Your task to perform on an android device: see sites visited before in the chrome app Image 0: 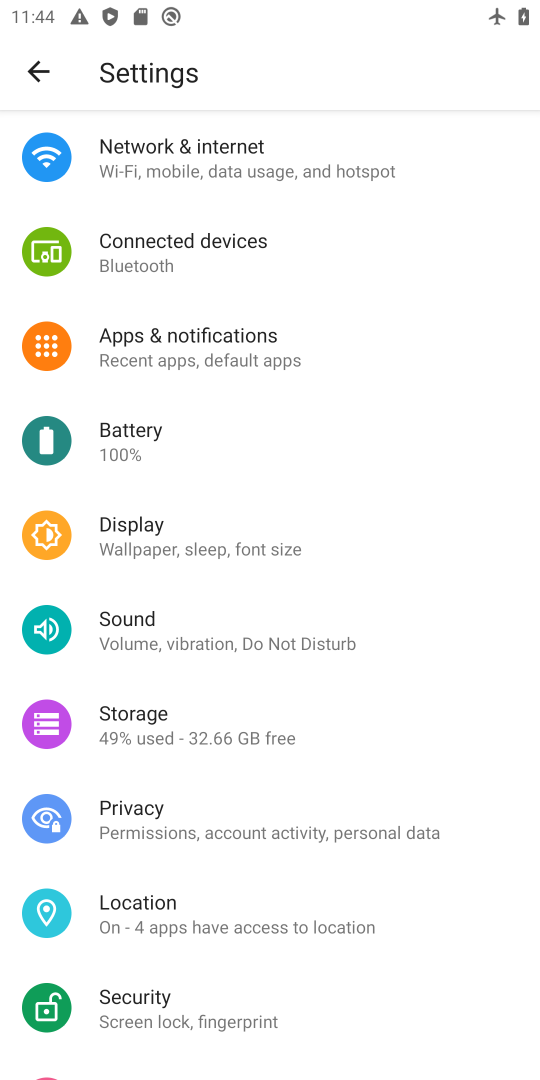
Step 0: press home button
Your task to perform on an android device: see sites visited before in the chrome app Image 1: 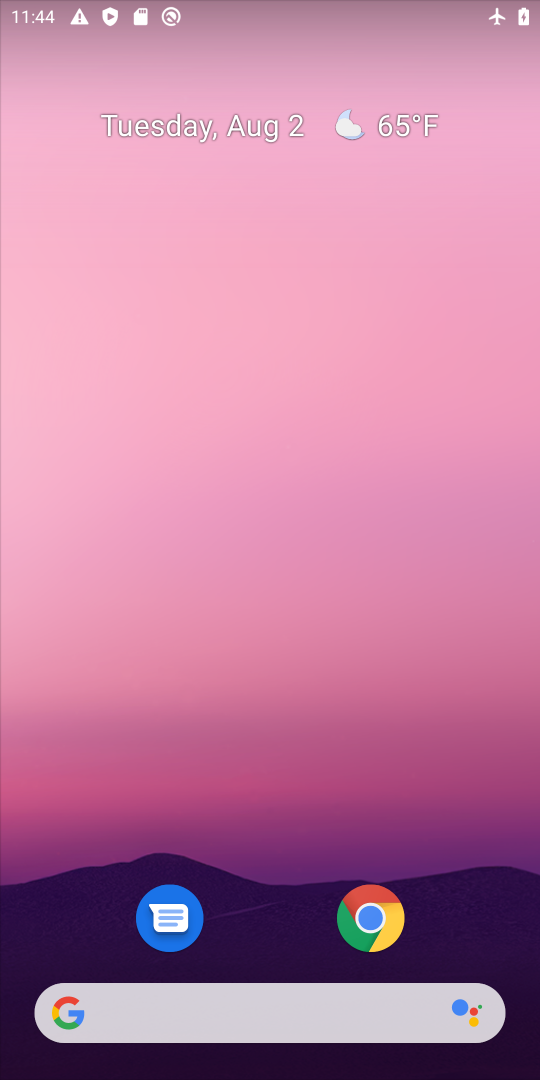
Step 1: click (383, 906)
Your task to perform on an android device: see sites visited before in the chrome app Image 2: 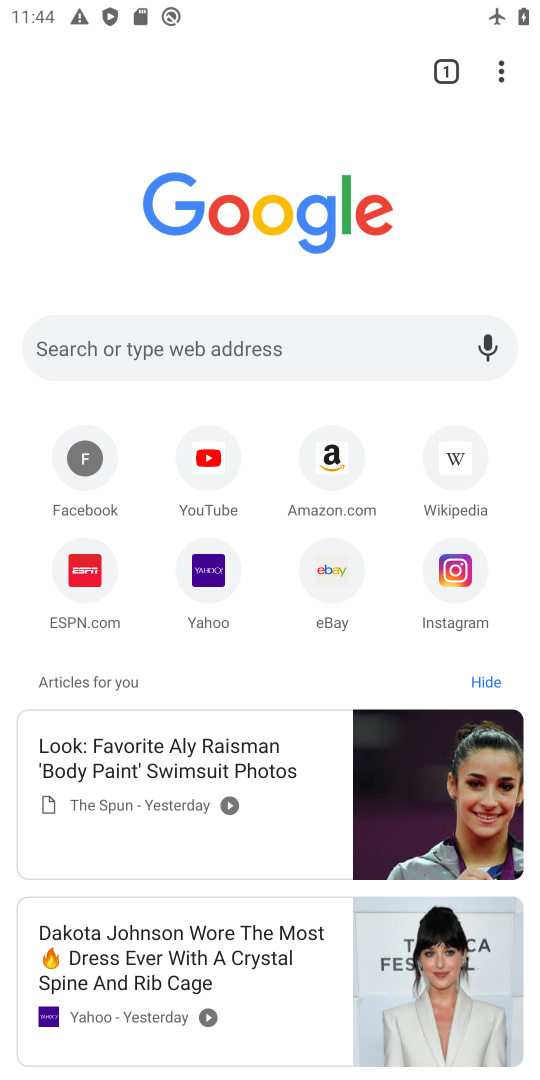
Step 2: click (503, 74)
Your task to perform on an android device: see sites visited before in the chrome app Image 3: 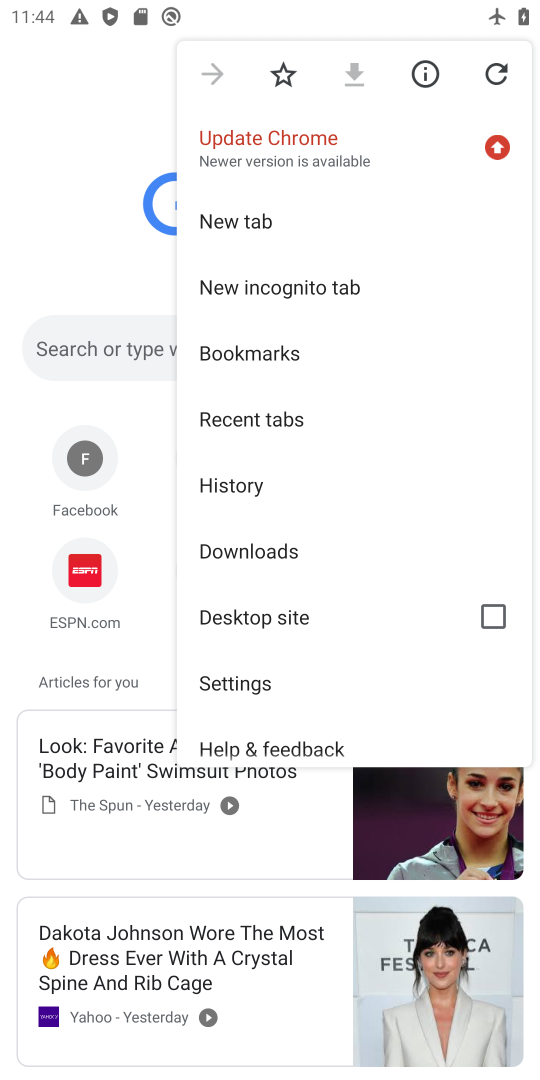
Step 3: click (262, 404)
Your task to perform on an android device: see sites visited before in the chrome app Image 4: 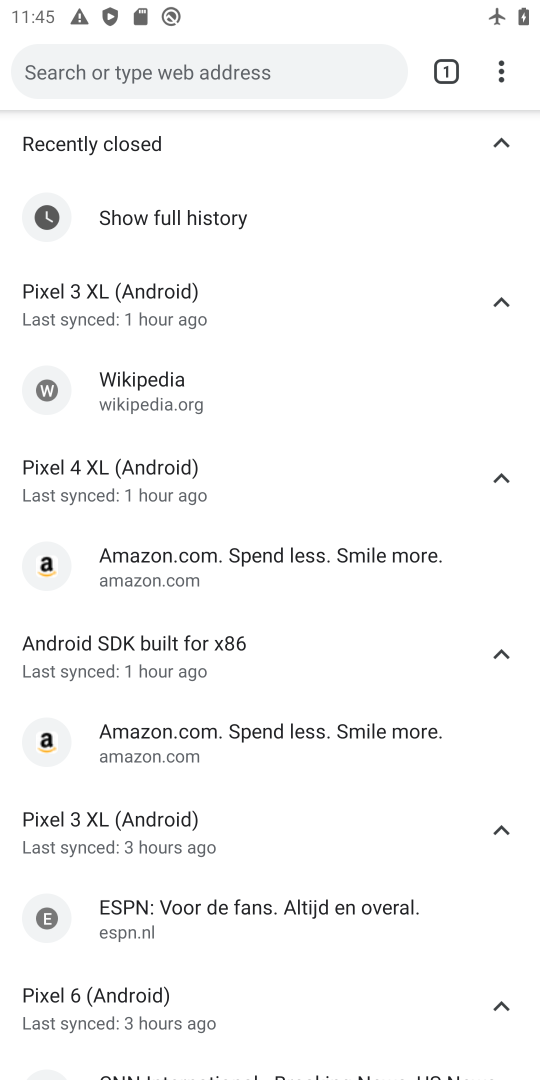
Step 4: task complete